Your task to perform on an android device: What is the news today? Image 0: 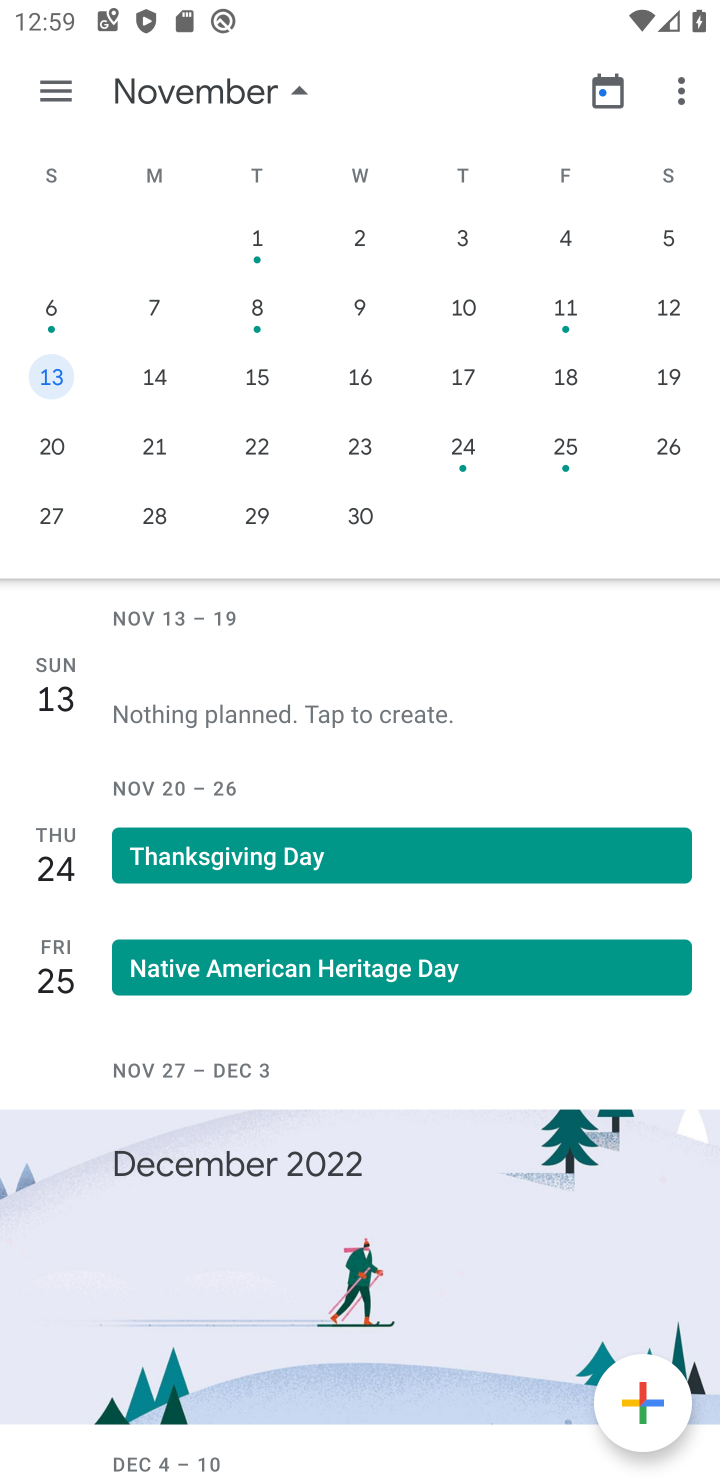
Step 0: press home button
Your task to perform on an android device: What is the news today? Image 1: 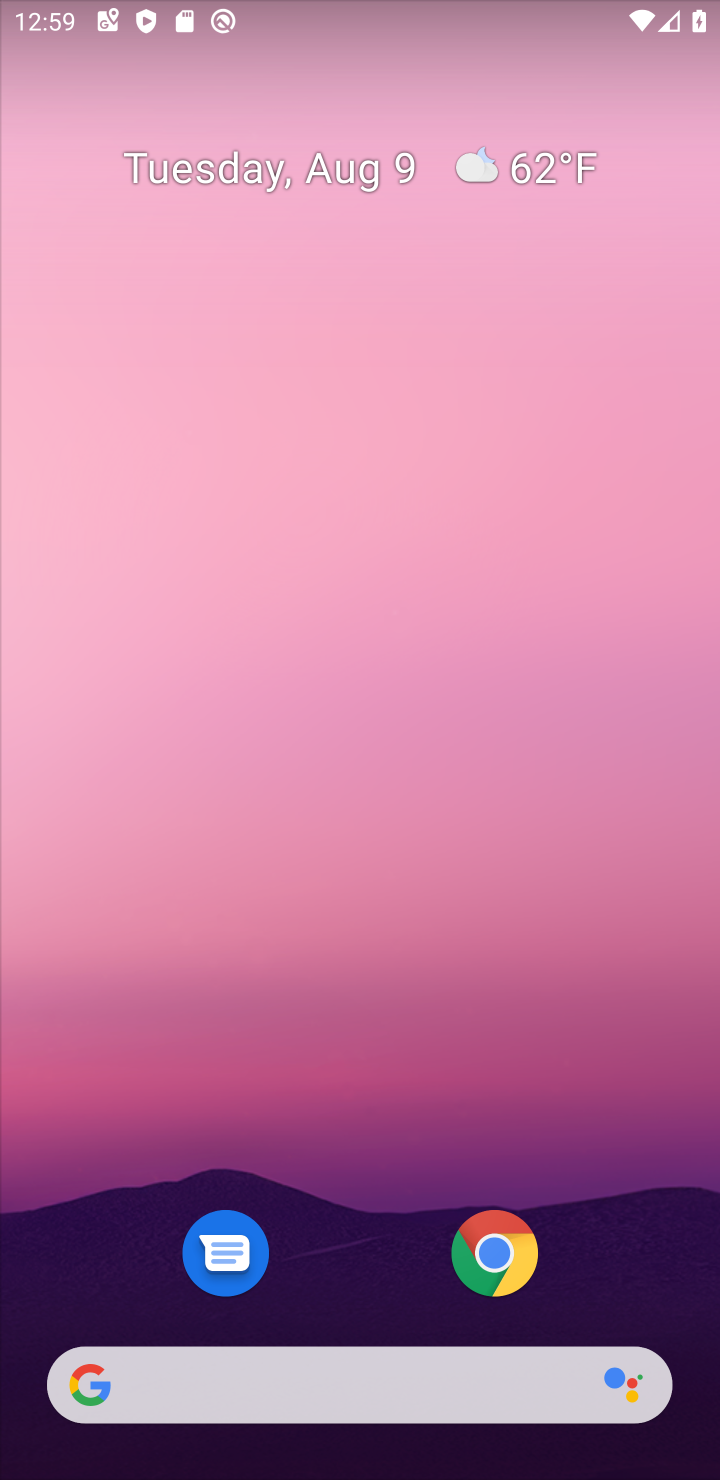
Step 1: drag from (561, 879) to (319, 17)
Your task to perform on an android device: What is the news today? Image 2: 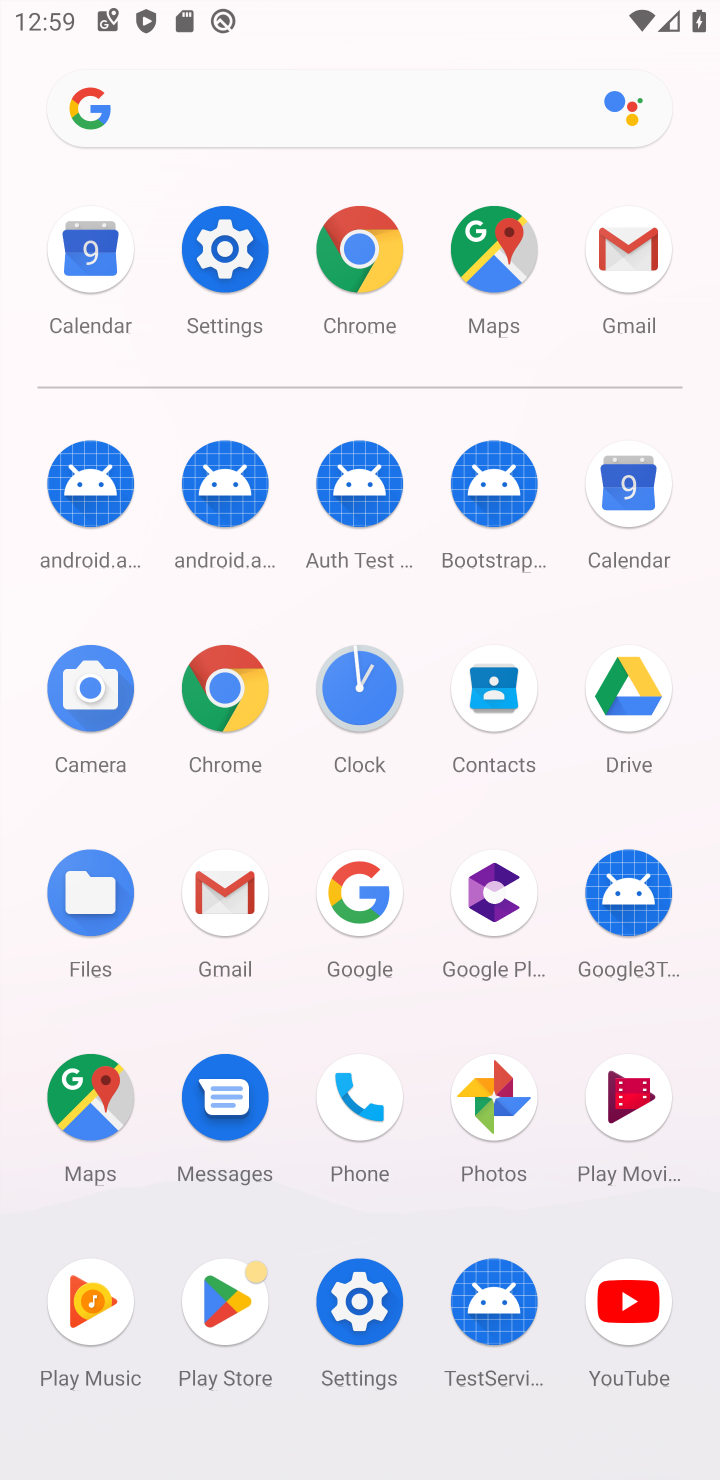
Step 2: click (336, 877)
Your task to perform on an android device: What is the news today? Image 3: 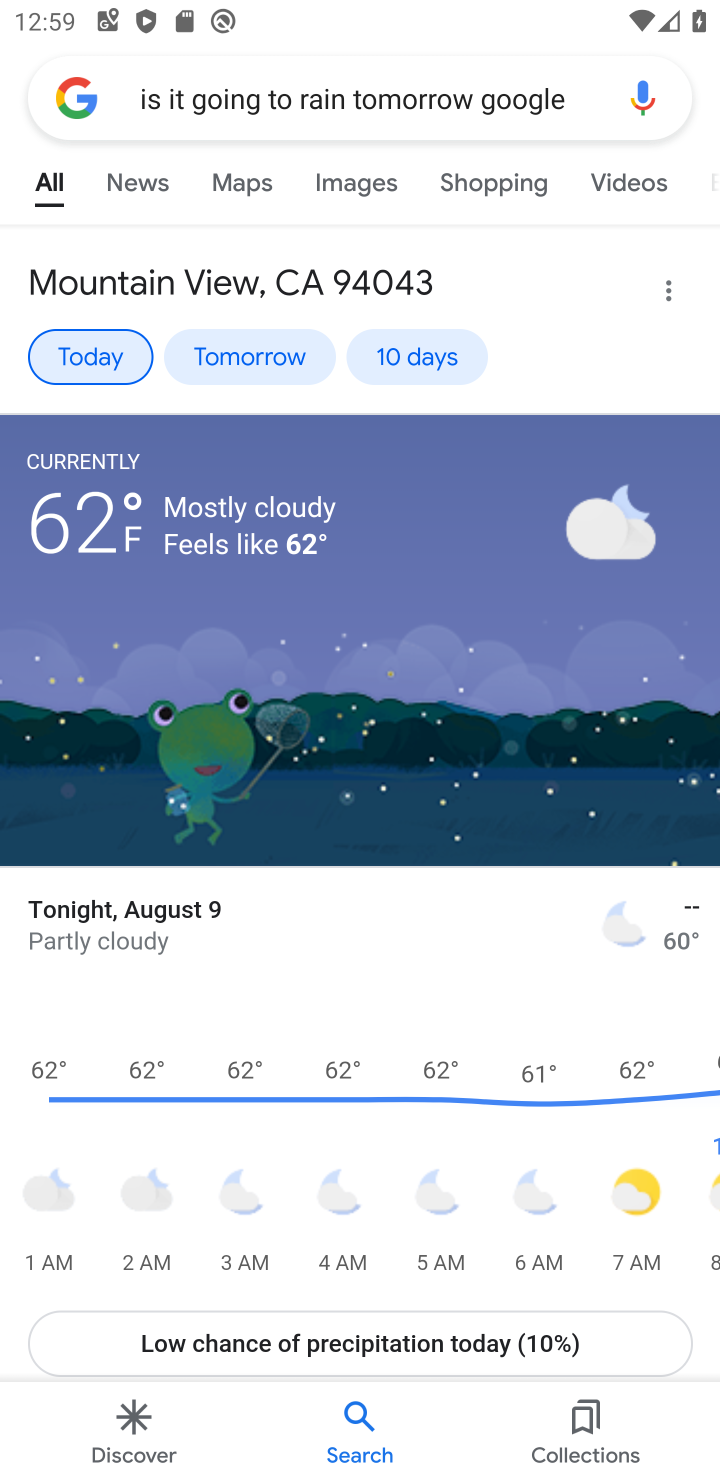
Step 3: press back button
Your task to perform on an android device: What is the news today? Image 4: 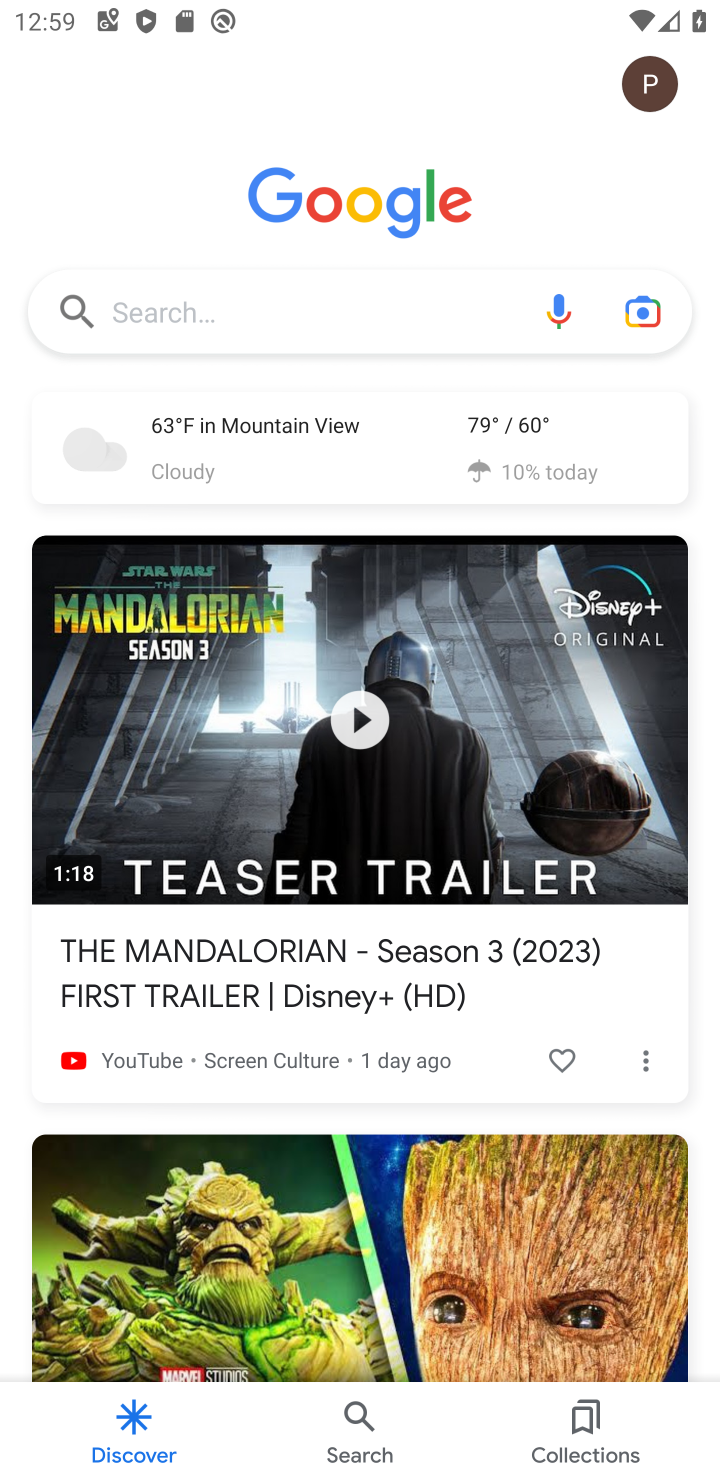
Step 4: click (243, 310)
Your task to perform on an android device: What is the news today? Image 5: 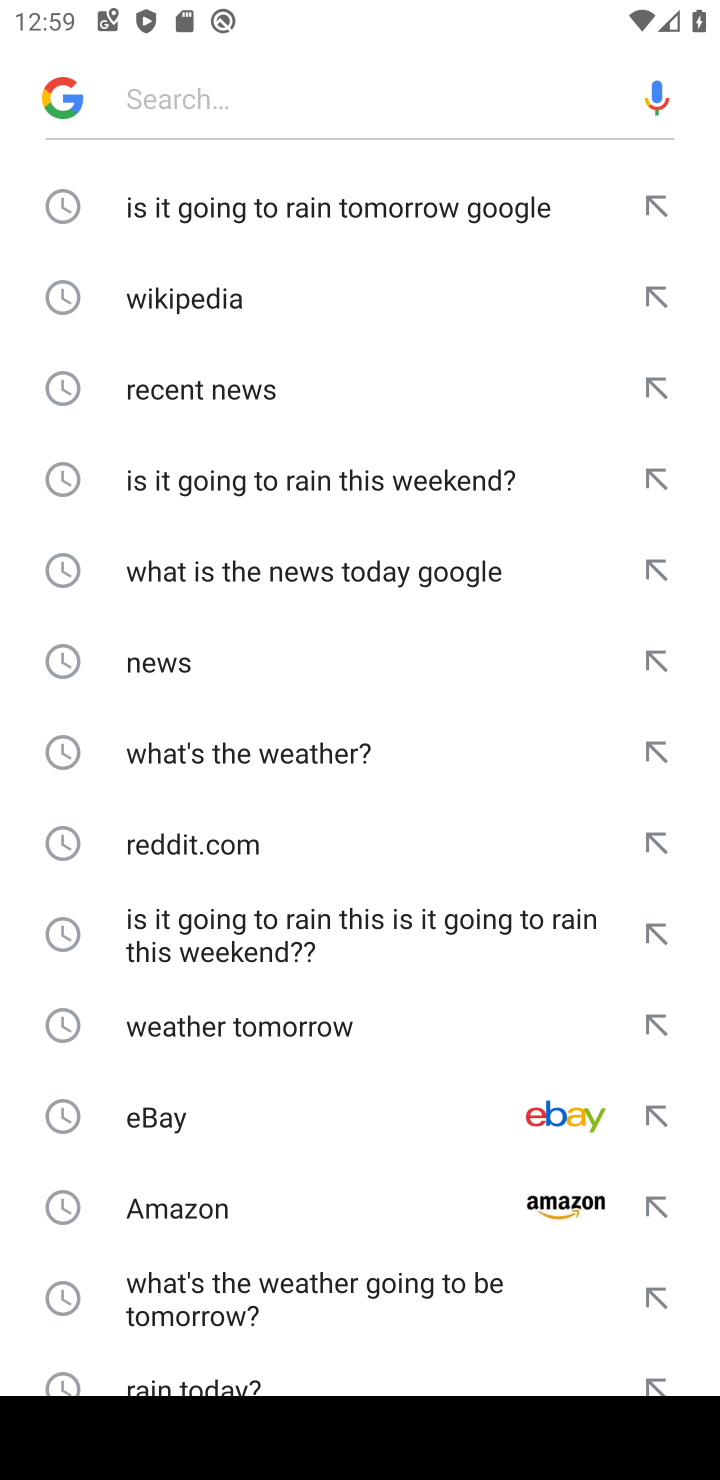
Step 5: type "What is the news today?"
Your task to perform on an android device: What is the news today? Image 6: 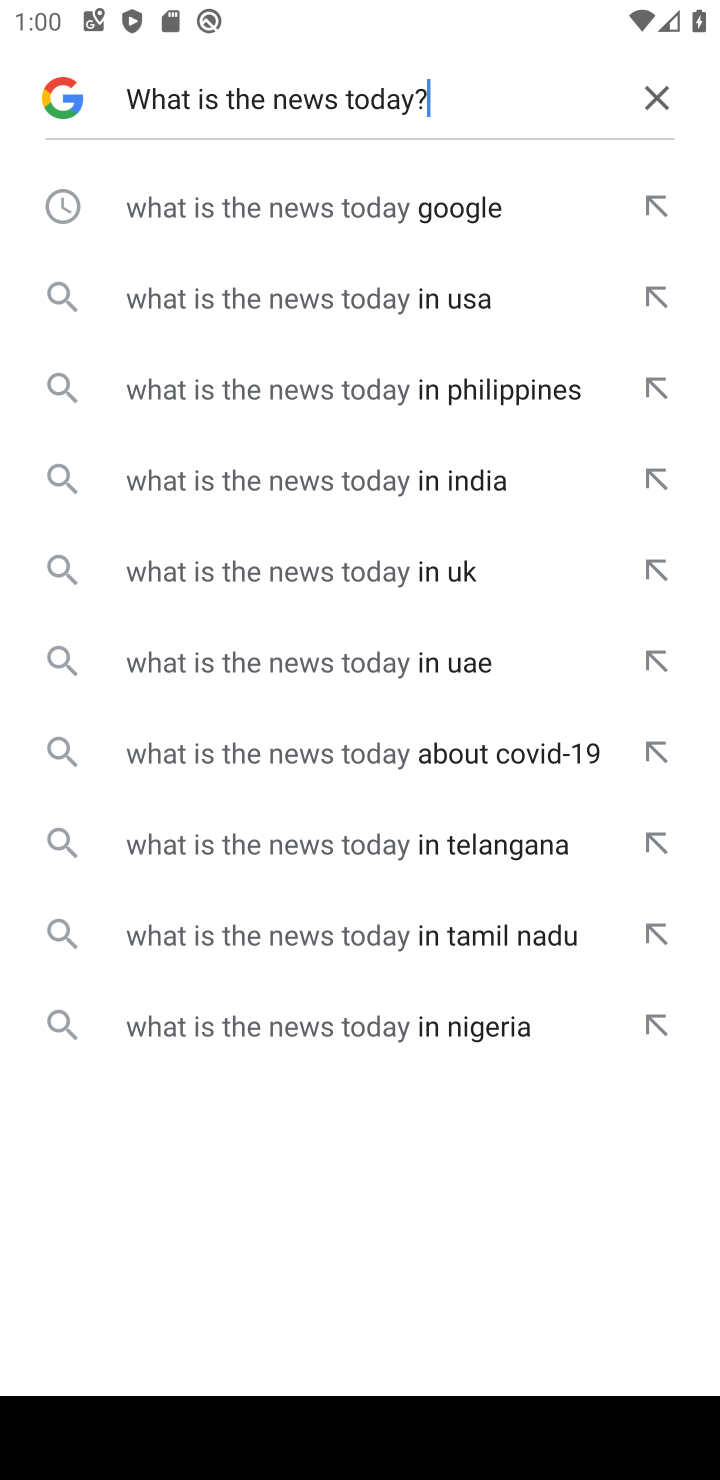
Step 6: click (368, 207)
Your task to perform on an android device: What is the news today? Image 7: 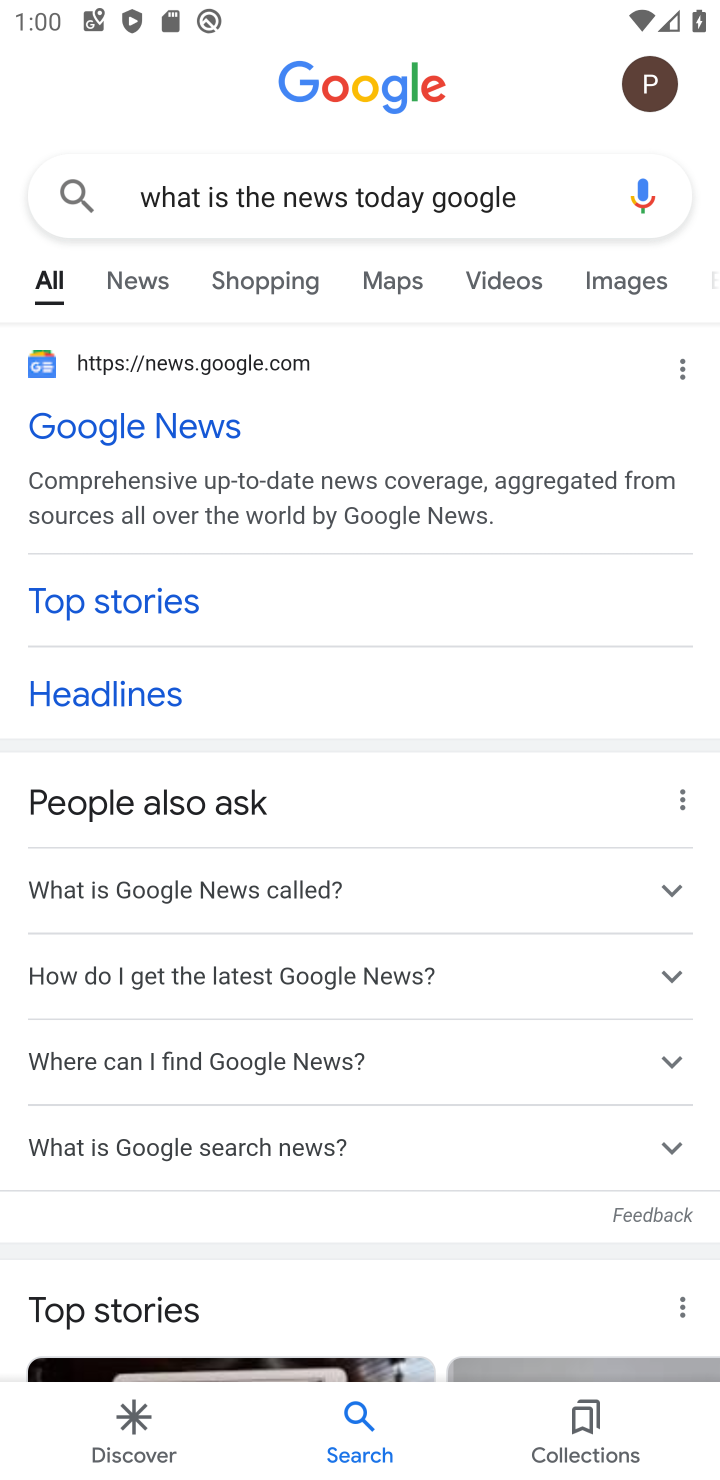
Step 7: task complete